Your task to perform on an android device: turn on airplane mode Image 0: 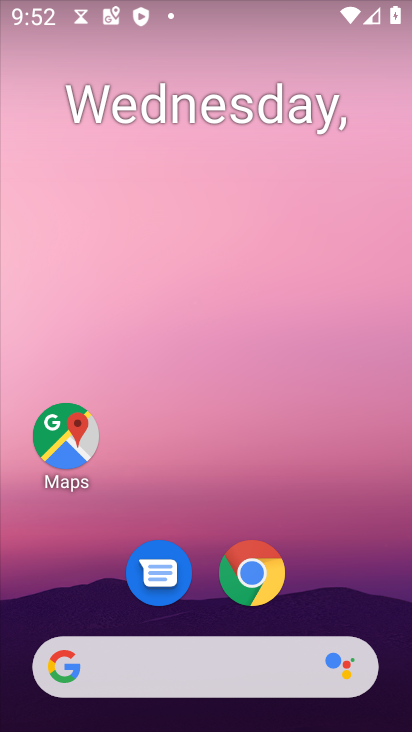
Step 0: drag from (314, 615) to (333, 292)
Your task to perform on an android device: turn on airplane mode Image 1: 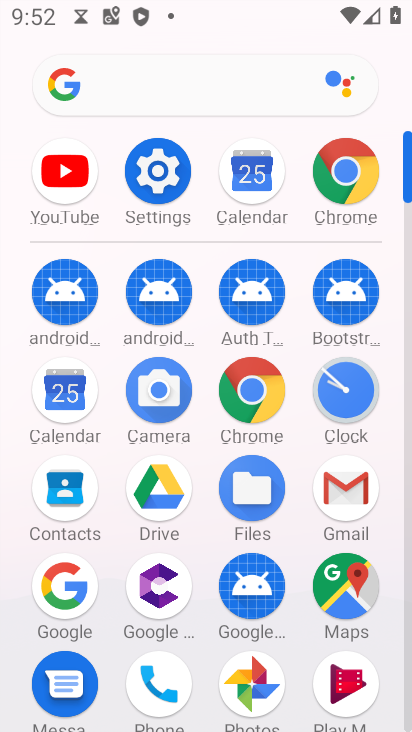
Step 1: click (141, 163)
Your task to perform on an android device: turn on airplane mode Image 2: 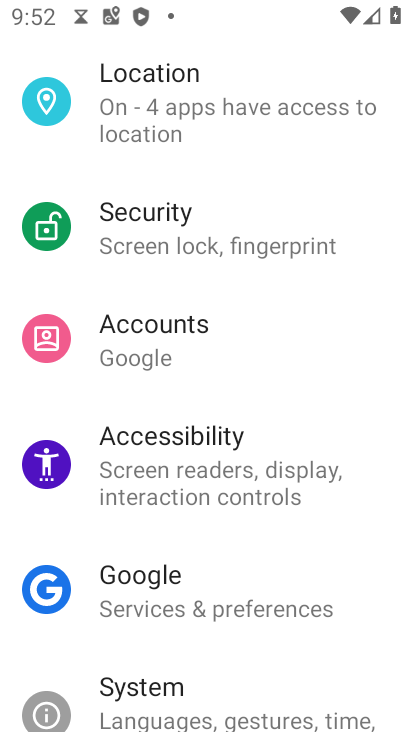
Step 2: drag from (242, 633) to (263, 681)
Your task to perform on an android device: turn on airplane mode Image 3: 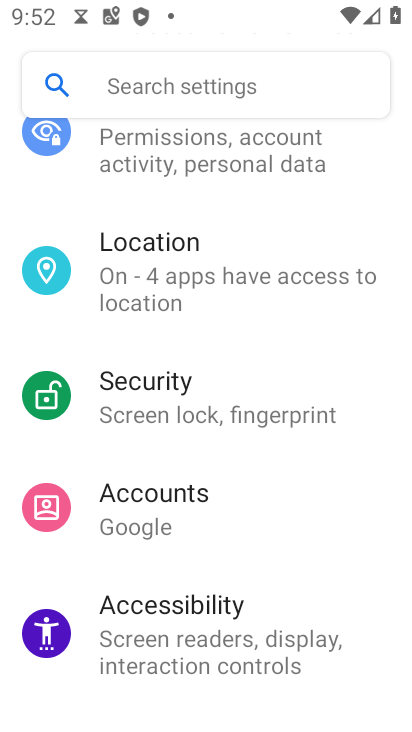
Step 3: drag from (241, 202) to (250, 571)
Your task to perform on an android device: turn on airplane mode Image 4: 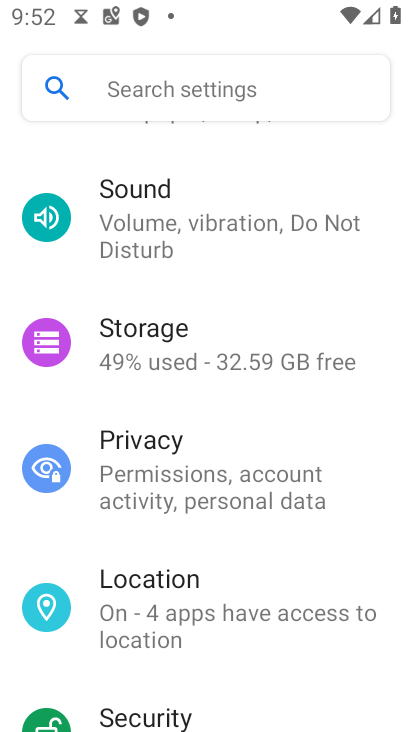
Step 4: drag from (208, 168) to (191, 548)
Your task to perform on an android device: turn on airplane mode Image 5: 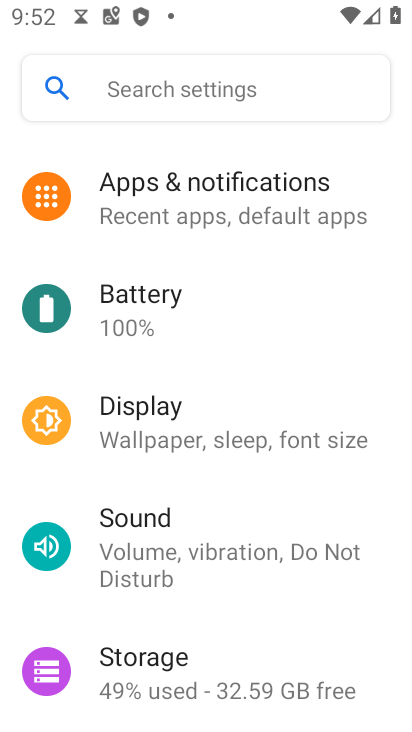
Step 5: drag from (192, 225) to (201, 580)
Your task to perform on an android device: turn on airplane mode Image 6: 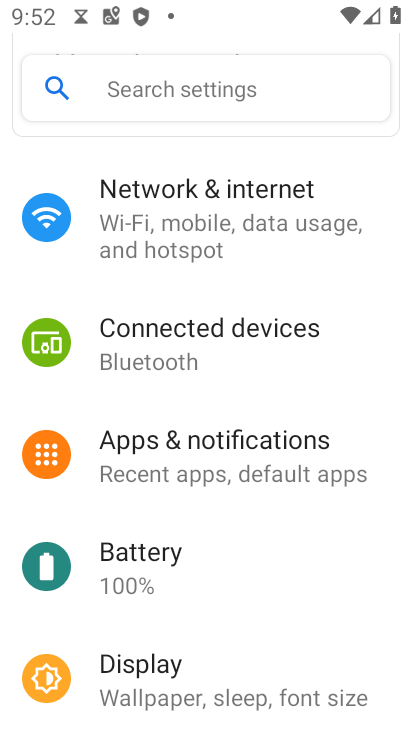
Step 6: click (193, 218)
Your task to perform on an android device: turn on airplane mode Image 7: 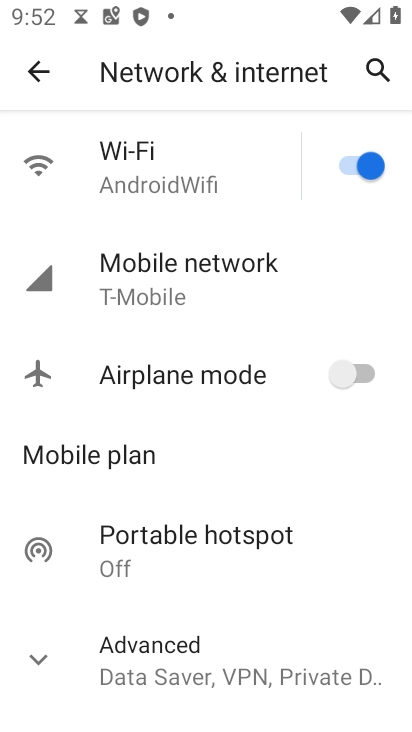
Step 7: click (348, 363)
Your task to perform on an android device: turn on airplane mode Image 8: 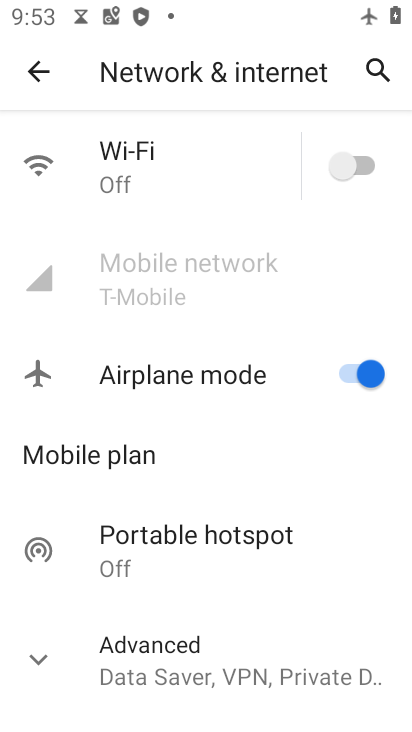
Step 8: task complete